Your task to perform on an android device: turn on the 12-hour format for clock Image 0: 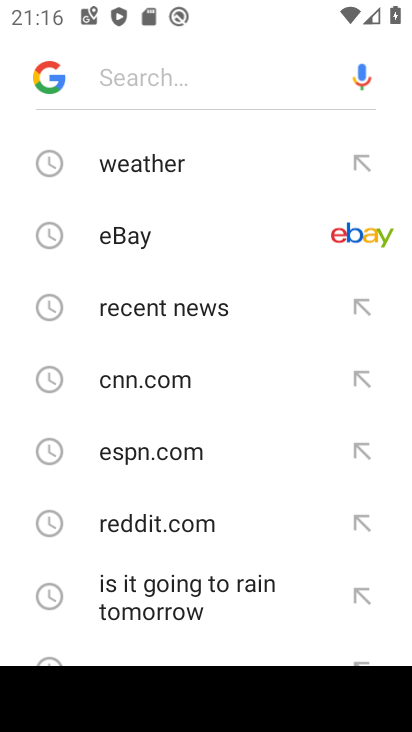
Step 0: press home button
Your task to perform on an android device: turn on the 12-hour format for clock Image 1: 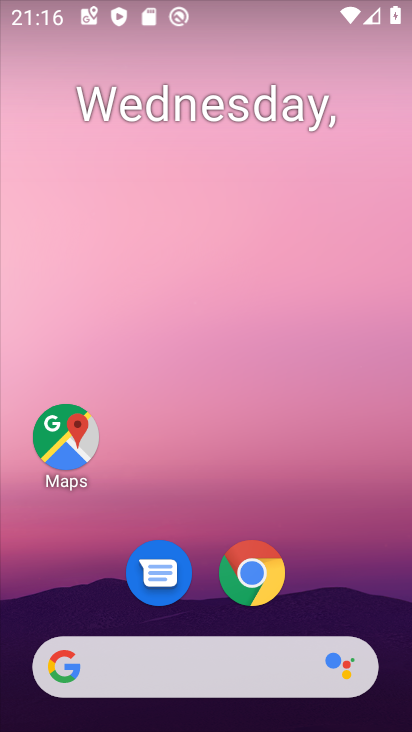
Step 1: click (409, 652)
Your task to perform on an android device: turn on the 12-hour format for clock Image 2: 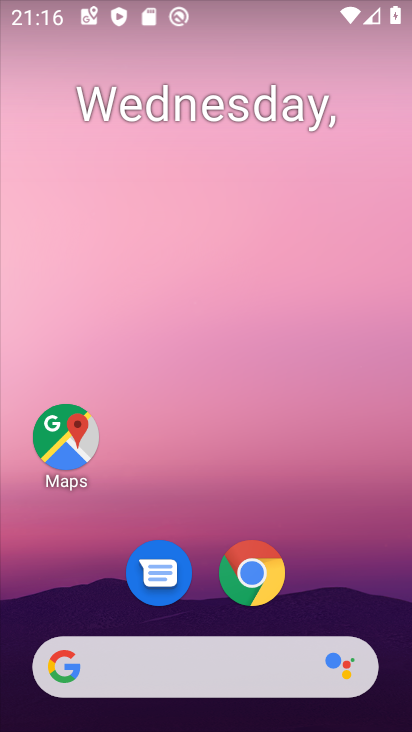
Step 2: drag from (372, 613) to (339, 240)
Your task to perform on an android device: turn on the 12-hour format for clock Image 3: 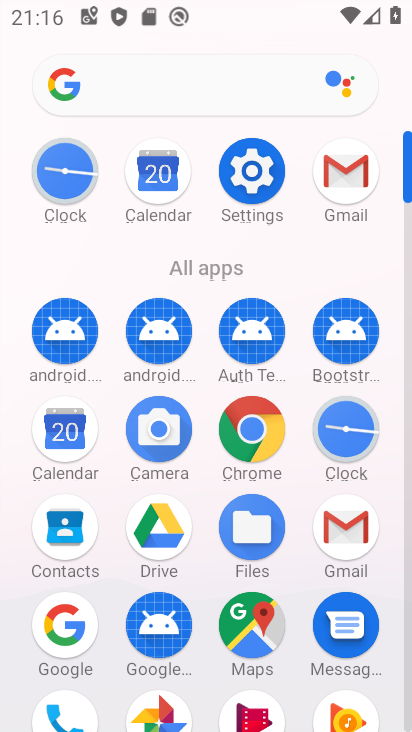
Step 3: click (336, 424)
Your task to perform on an android device: turn on the 12-hour format for clock Image 4: 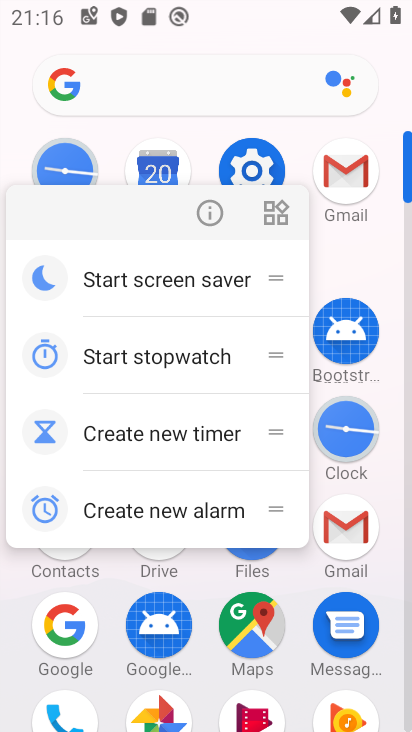
Step 4: click (330, 432)
Your task to perform on an android device: turn on the 12-hour format for clock Image 5: 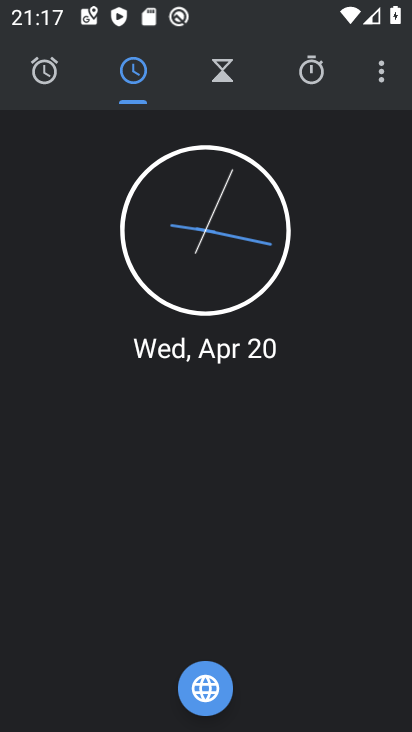
Step 5: click (382, 68)
Your task to perform on an android device: turn on the 12-hour format for clock Image 6: 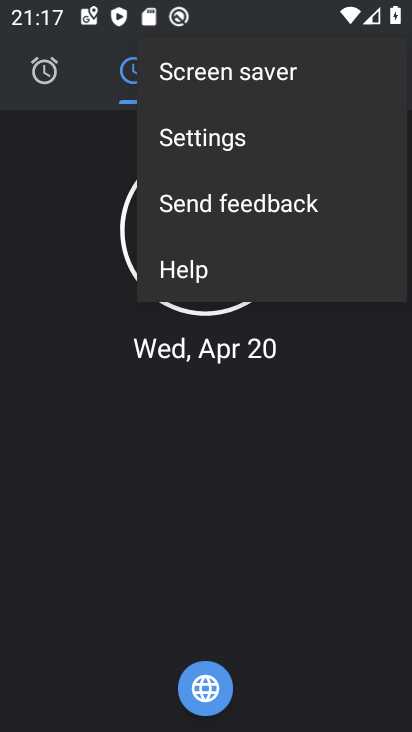
Step 6: click (183, 134)
Your task to perform on an android device: turn on the 12-hour format for clock Image 7: 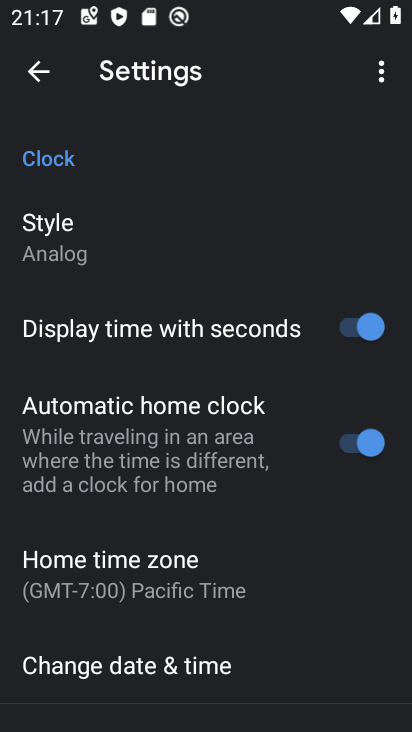
Step 7: drag from (275, 629) to (284, 248)
Your task to perform on an android device: turn on the 12-hour format for clock Image 8: 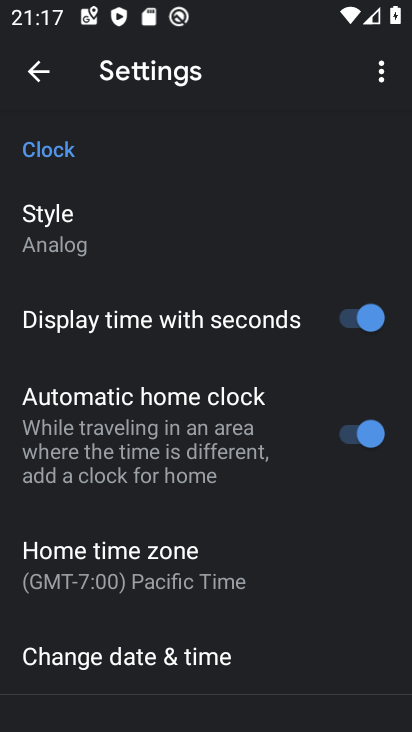
Step 8: drag from (257, 627) to (253, 287)
Your task to perform on an android device: turn on the 12-hour format for clock Image 9: 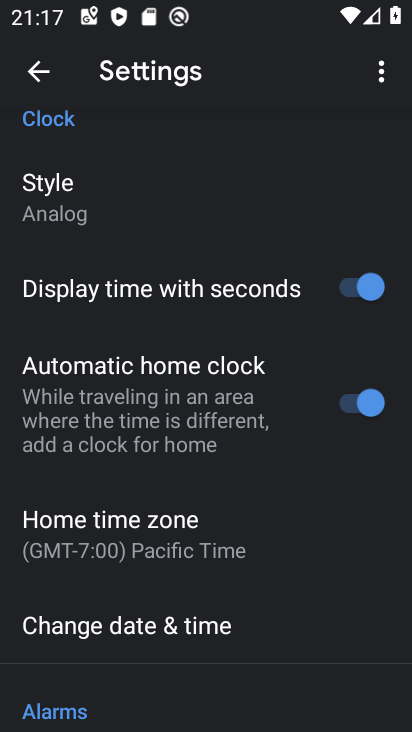
Step 9: click (145, 618)
Your task to perform on an android device: turn on the 12-hour format for clock Image 10: 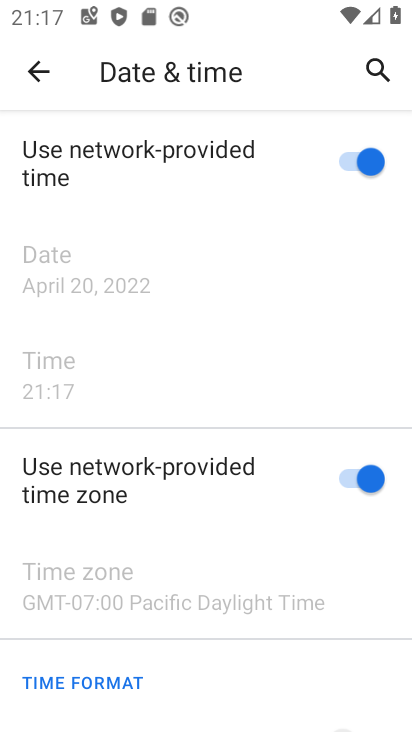
Step 10: drag from (249, 676) to (283, 210)
Your task to perform on an android device: turn on the 12-hour format for clock Image 11: 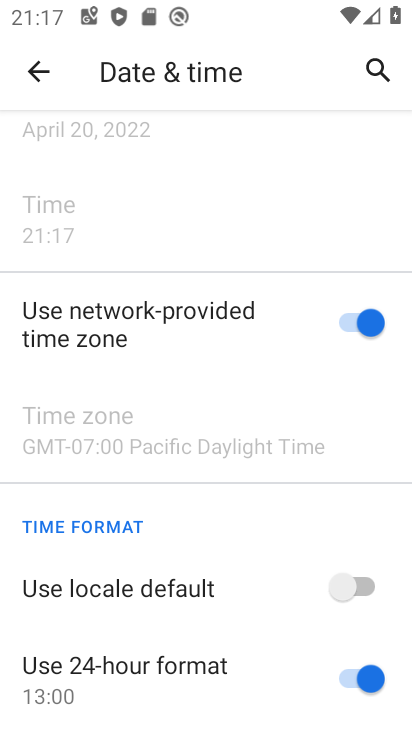
Step 11: drag from (277, 439) to (290, 249)
Your task to perform on an android device: turn on the 12-hour format for clock Image 12: 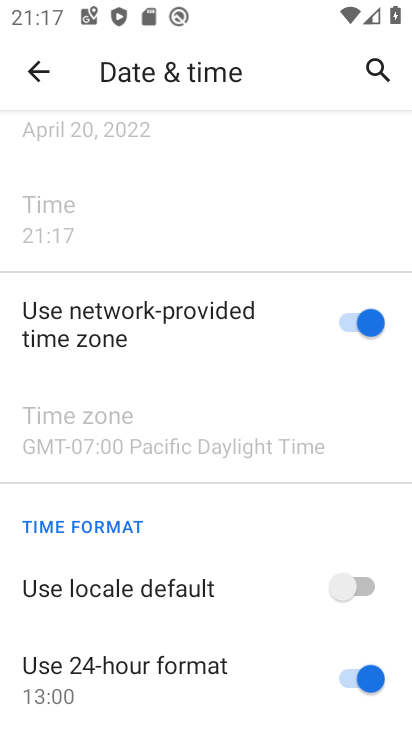
Step 12: click (359, 582)
Your task to perform on an android device: turn on the 12-hour format for clock Image 13: 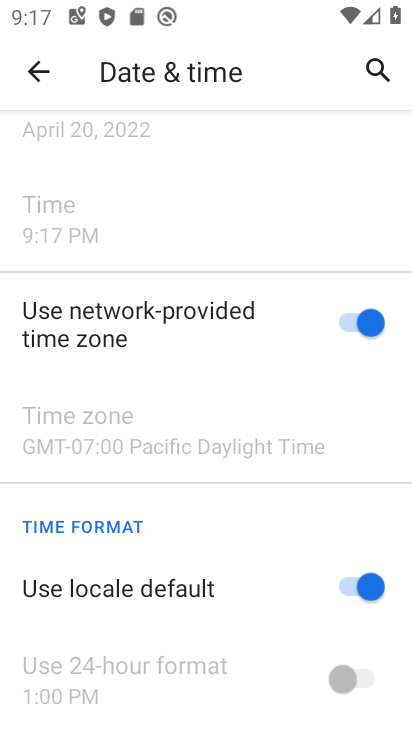
Step 13: task complete